Your task to perform on an android device: turn off airplane mode Image 0: 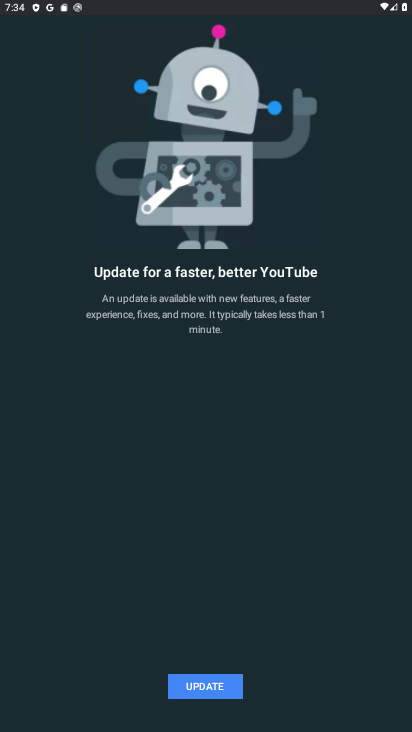
Step 0: press home button
Your task to perform on an android device: turn off airplane mode Image 1: 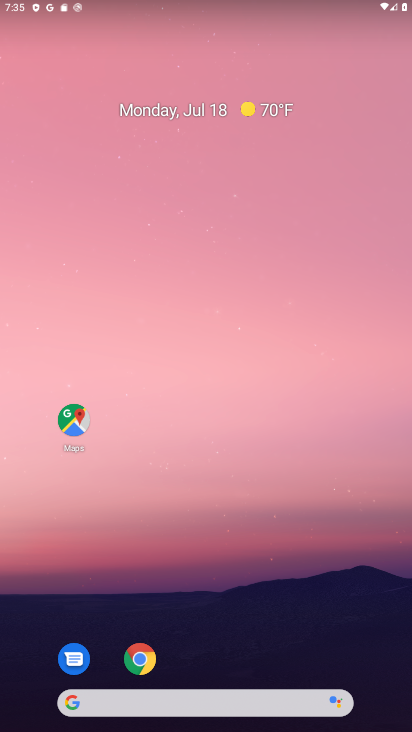
Step 1: drag from (202, 712) to (277, 223)
Your task to perform on an android device: turn off airplane mode Image 2: 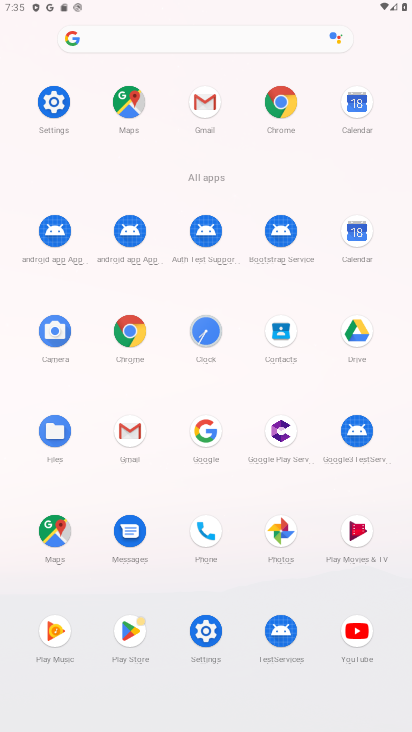
Step 2: click (53, 102)
Your task to perform on an android device: turn off airplane mode Image 3: 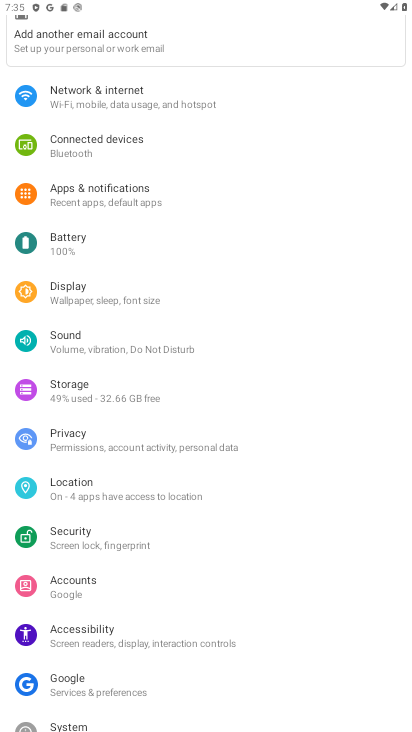
Step 3: click (80, 94)
Your task to perform on an android device: turn off airplane mode Image 4: 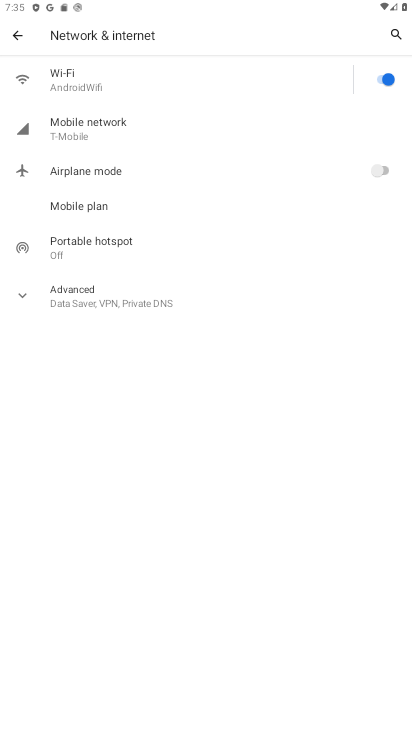
Step 4: task complete